Your task to perform on an android device: Check the weather Image 0: 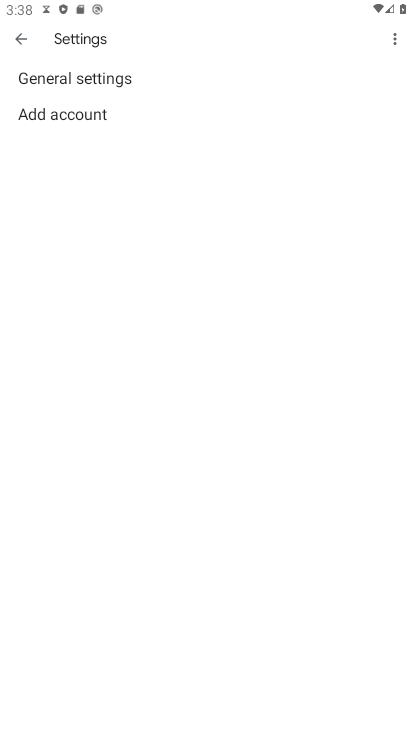
Step 0: press home button
Your task to perform on an android device: Check the weather Image 1: 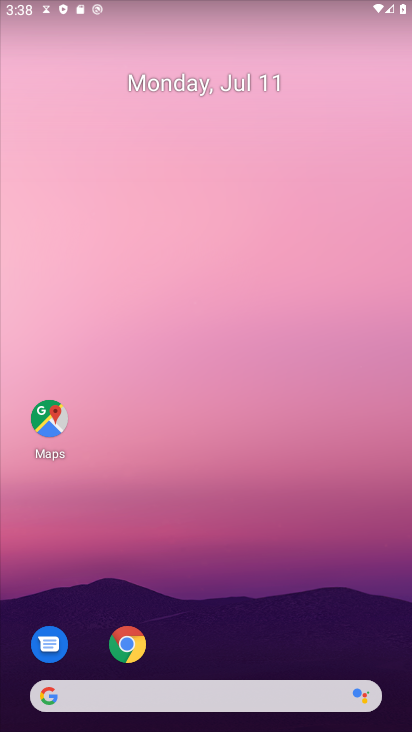
Step 1: drag from (201, 722) to (181, 166)
Your task to perform on an android device: Check the weather Image 2: 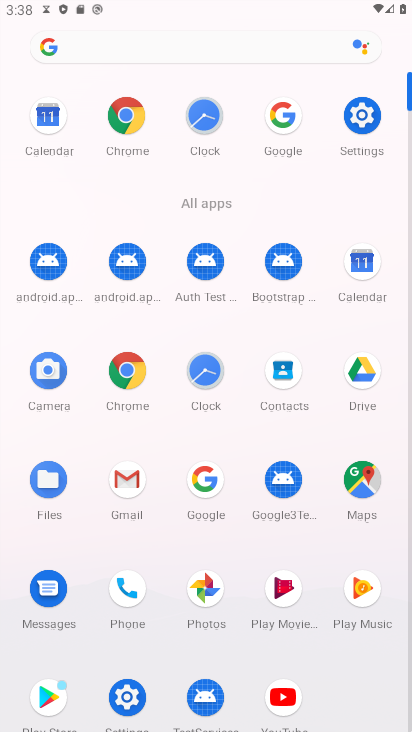
Step 2: click (204, 472)
Your task to perform on an android device: Check the weather Image 3: 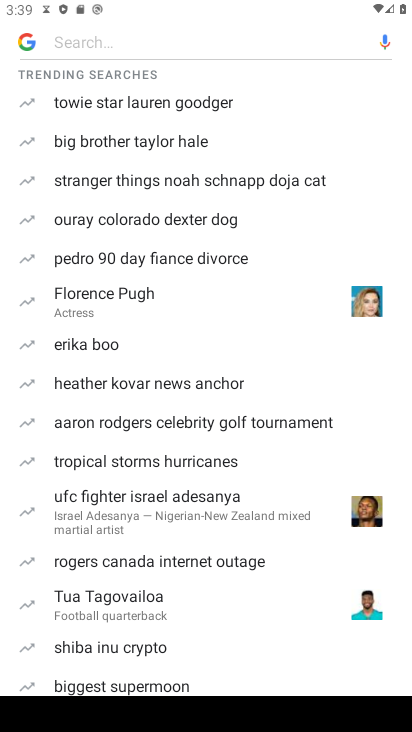
Step 3: type "weather"
Your task to perform on an android device: Check the weather Image 4: 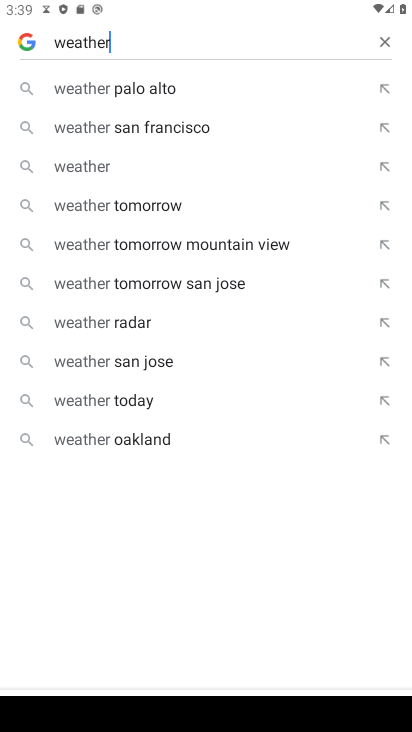
Step 4: click (85, 167)
Your task to perform on an android device: Check the weather Image 5: 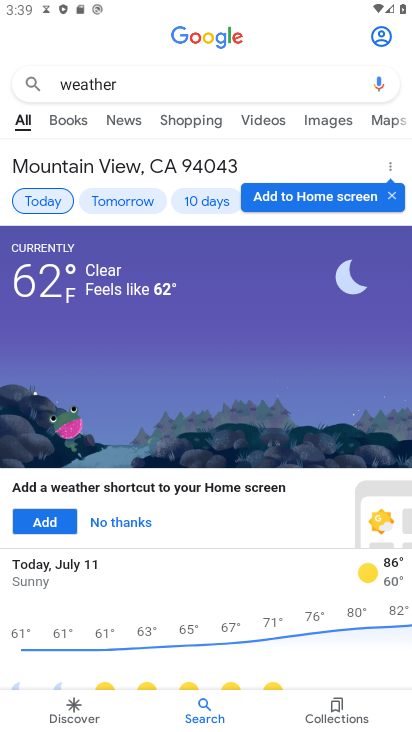
Step 5: click (47, 203)
Your task to perform on an android device: Check the weather Image 6: 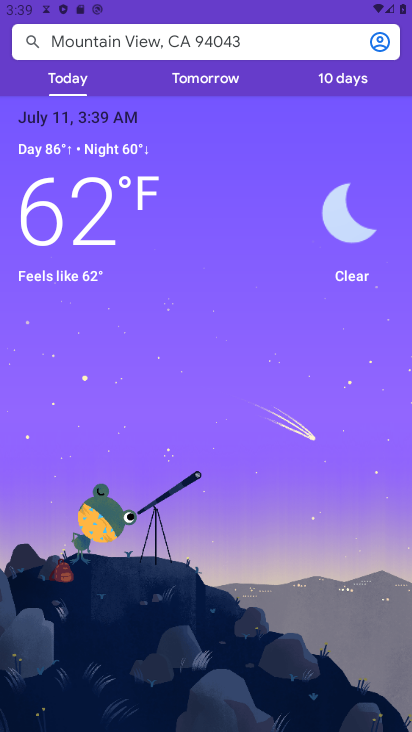
Step 6: task complete